Your task to perform on an android device: Open Google Chrome and click the shortcut for Amazon.com Image 0: 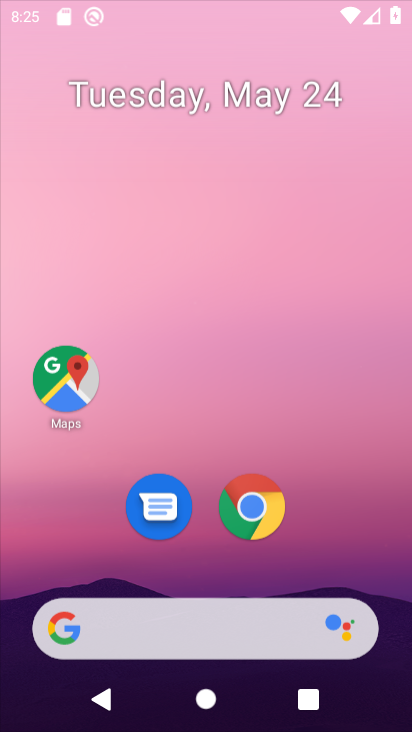
Step 0: click (288, 86)
Your task to perform on an android device: Open Google Chrome and click the shortcut for Amazon.com Image 1: 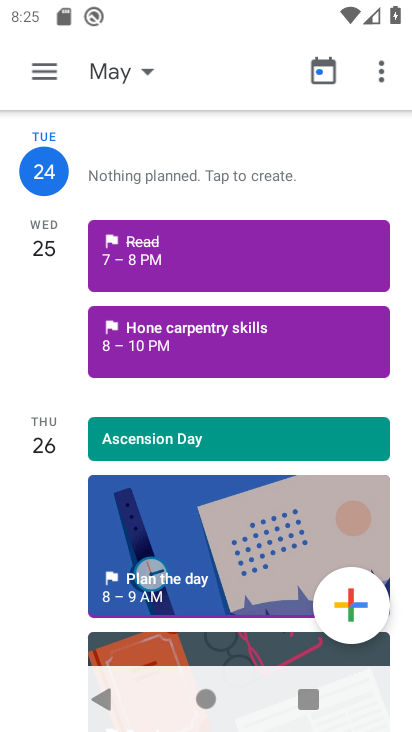
Step 1: press home button
Your task to perform on an android device: Open Google Chrome and click the shortcut for Amazon.com Image 2: 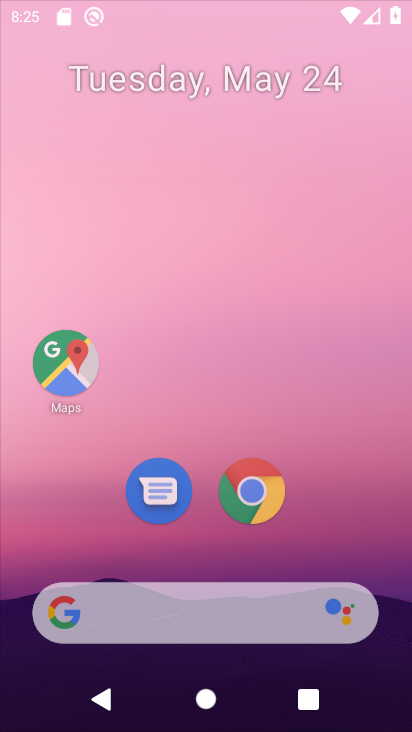
Step 2: drag from (200, 556) to (305, 66)
Your task to perform on an android device: Open Google Chrome and click the shortcut for Amazon.com Image 3: 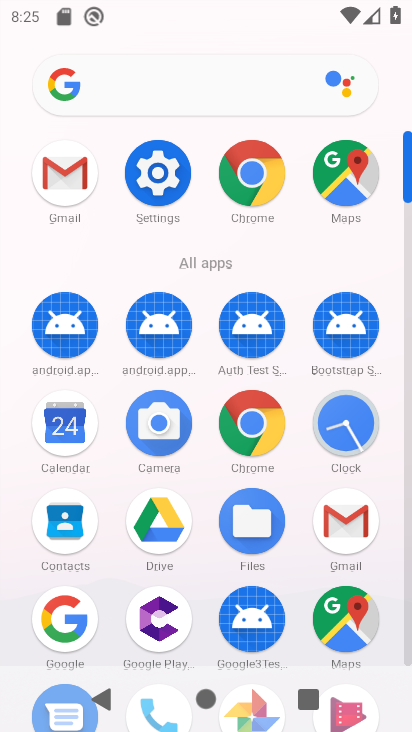
Step 3: click (254, 413)
Your task to perform on an android device: Open Google Chrome and click the shortcut for Amazon.com Image 4: 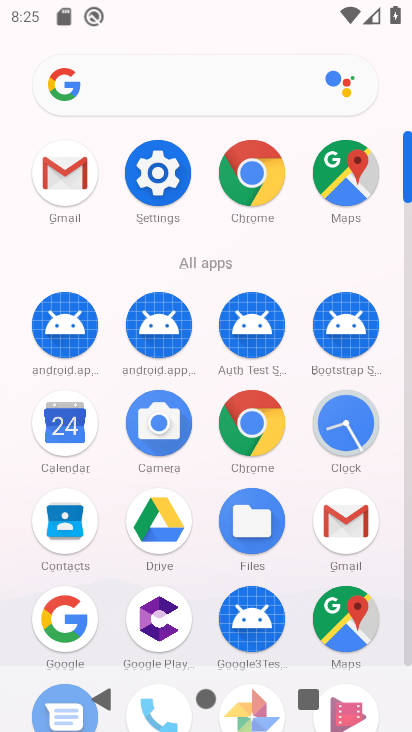
Step 4: click (254, 413)
Your task to perform on an android device: Open Google Chrome and click the shortcut for Amazon.com Image 5: 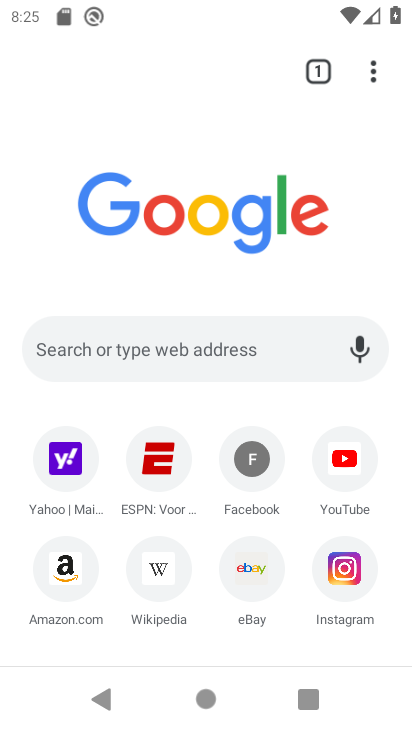
Step 5: click (79, 578)
Your task to perform on an android device: Open Google Chrome and click the shortcut for Amazon.com Image 6: 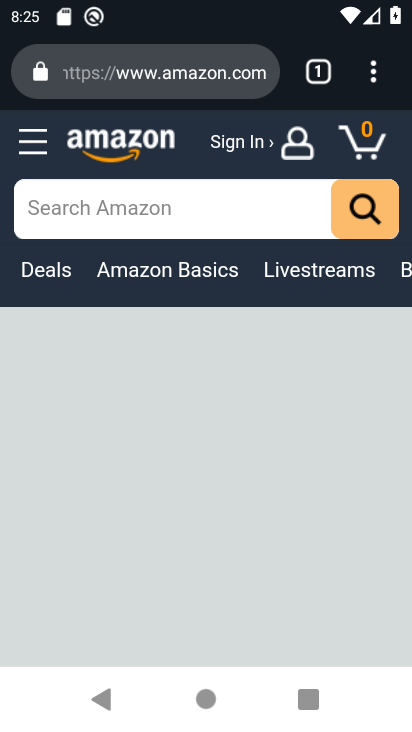
Step 6: task complete